Your task to perform on an android device: Go to calendar. Show me events next week Image 0: 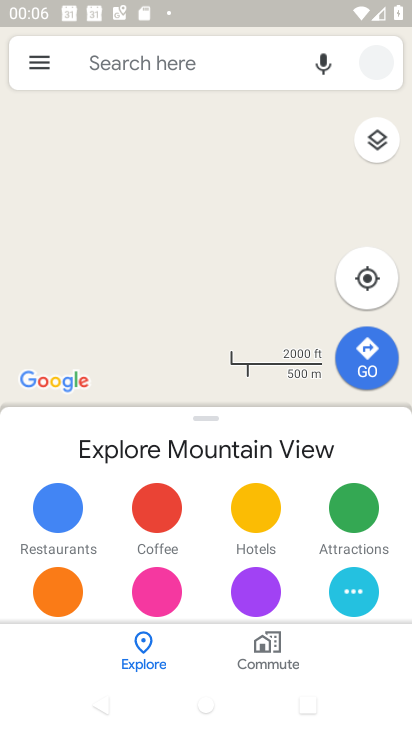
Step 0: press home button
Your task to perform on an android device: Go to calendar. Show me events next week Image 1: 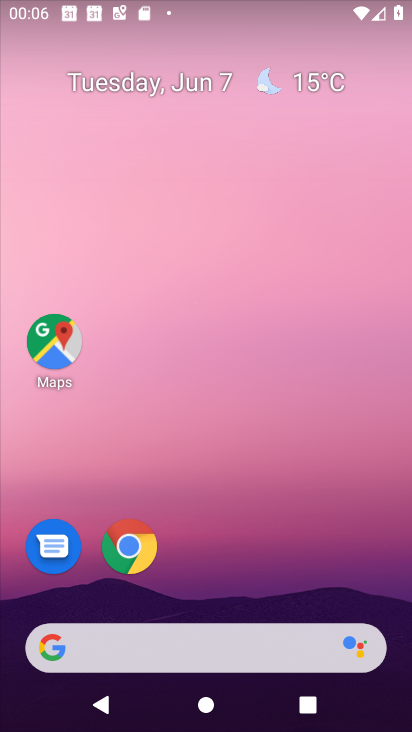
Step 1: drag from (153, 577) to (255, 50)
Your task to perform on an android device: Go to calendar. Show me events next week Image 2: 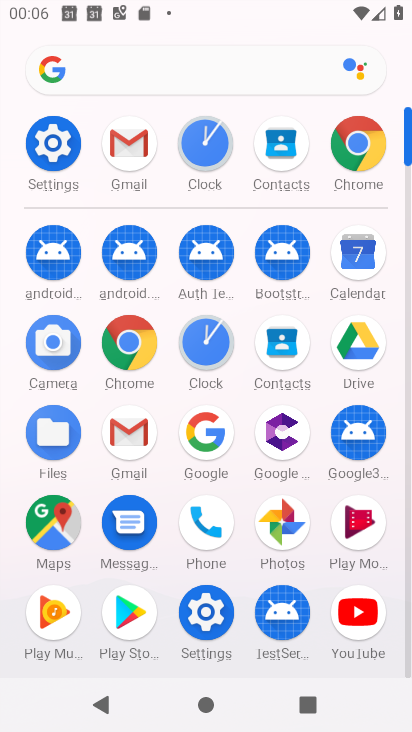
Step 2: click (356, 273)
Your task to perform on an android device: Go to calendar. Show me events next week Image 3: 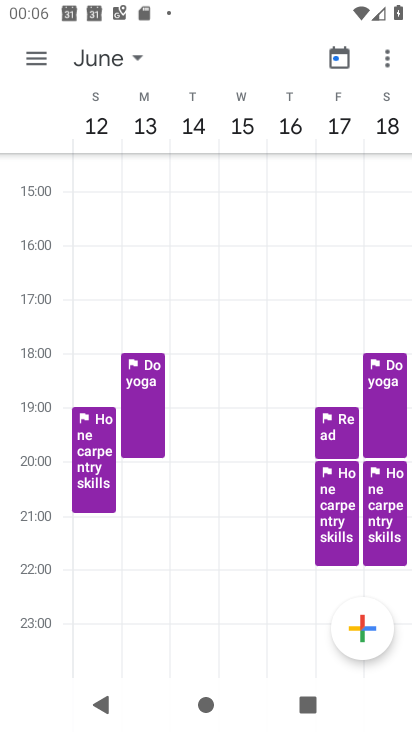
Step 3: task complete